Your task to perform on an android device: Do I have any events tomorrow? Image 0: 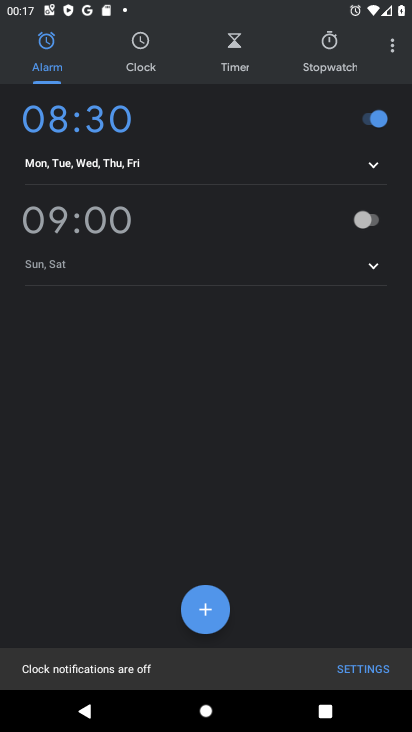
Step 0: press home button
Your task to perform on an android device: Do I have any events tomorrow? Image 1: 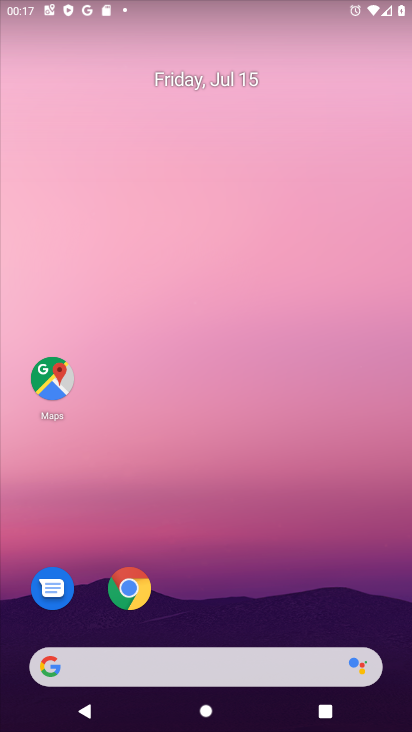
Step 1: drag from (168, 672) to (269, 265)
Your task to perform on an android device: Do I have any events tomorrow? Image 2: 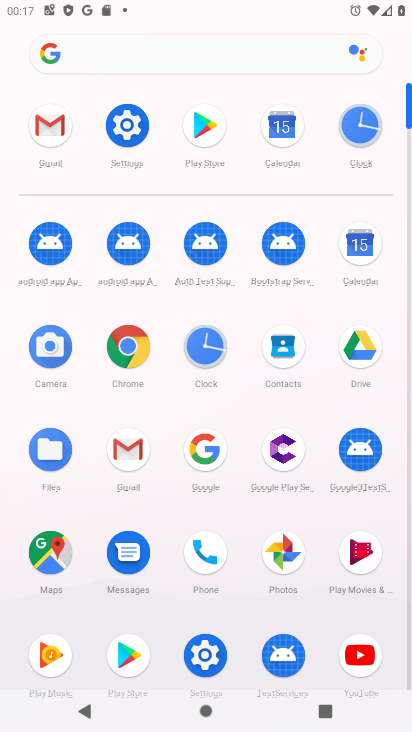
Step 2: click (280, 132)
Your task to perform on an android device: Do I have any events tomorrow? Image 3: 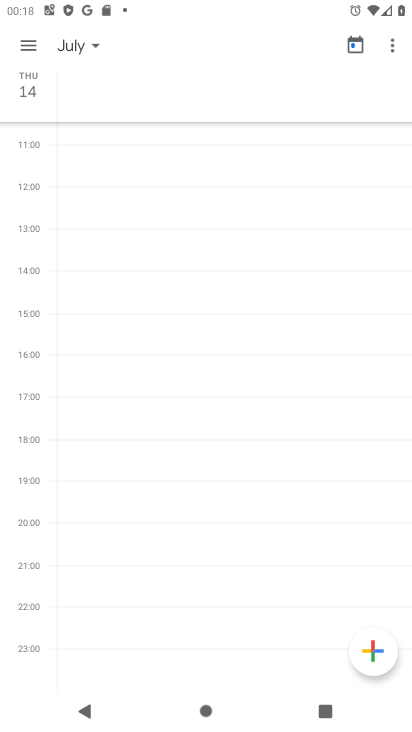
Step 3: click (70, 45)
Your task to perform on an android device: Do I have any events tomorrow? Image 4: 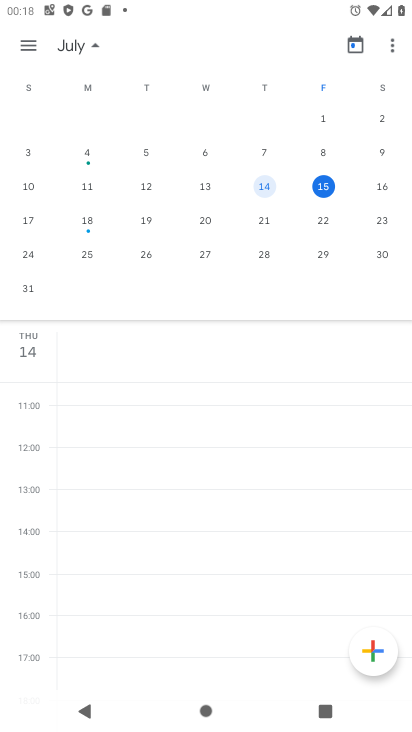
Step 4: click (328, 186)
Your task to perform on an android device: Do I have any events tomorrow? Image 5: 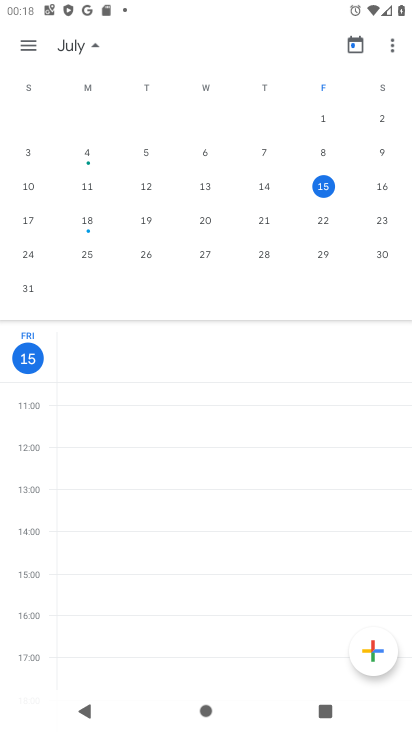
Step 5: click (29, 47)
Your task to perform on an android device: Do I have any events tomorrow? Image 6: 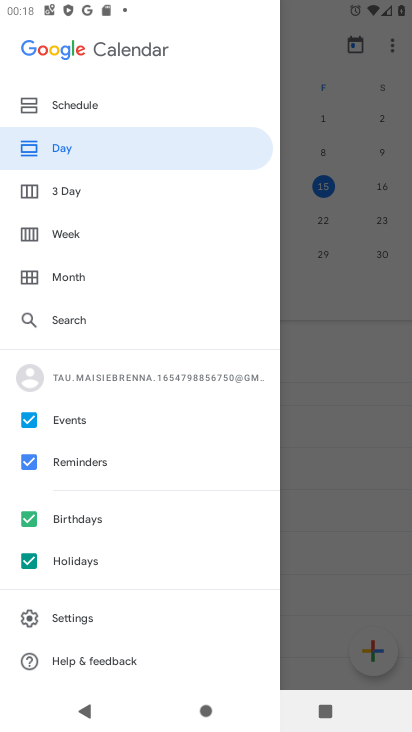
Step 6: click (66, 109)
Your task to perform on an android device: Do I have any events tomorrow? Image 7: 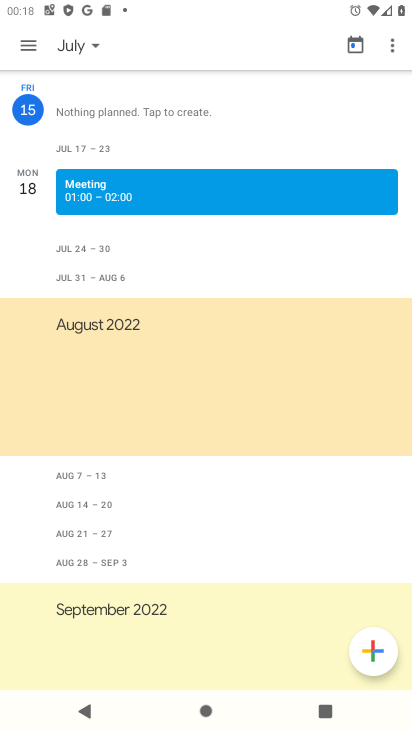
Step 7: task complete